Your task to perform on an android device: Open calendar and show me the first week of next month Image 0: 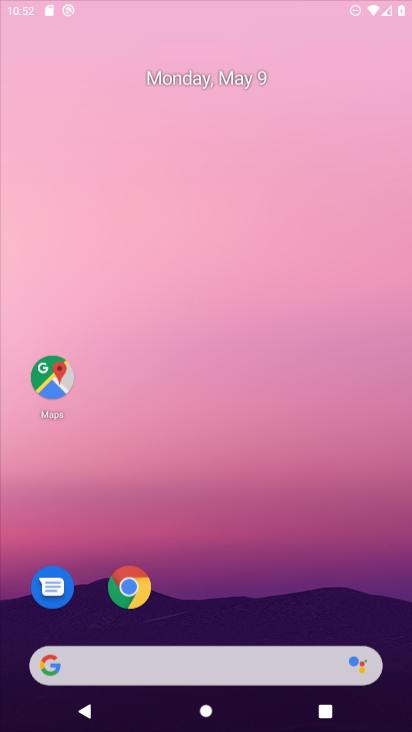
Step 0: drag from (236, 185) to (229, 130)
Your task to perform on an android device: Open calendar and show me the first week of next month Image 1: 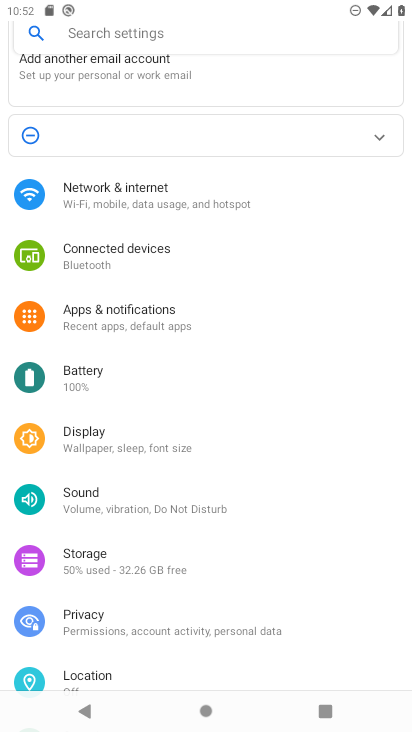
Step 1: press home button
Your task to perform on an android device: Open calendar and show me the first week of next month Image 2: 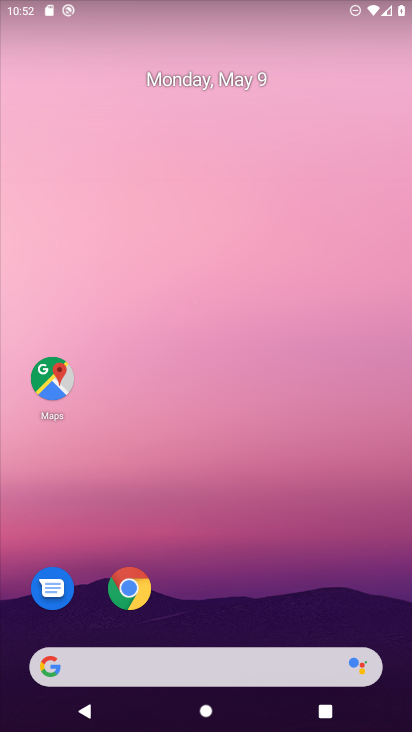
Step 2: drag from (282, 584) to (295, 100)
Your task to perform on an android device: Open calendar and show me the first week of next month Image 3: 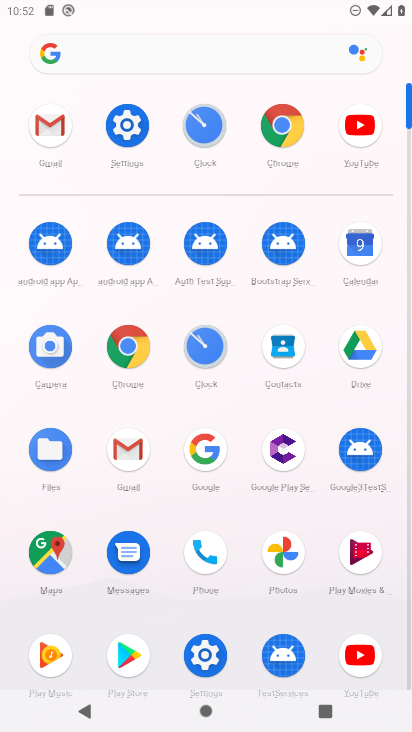
Step 3: click (371, 276)
Your task to perform on an android device: Open calendar and show me the first week of next month Image 4: 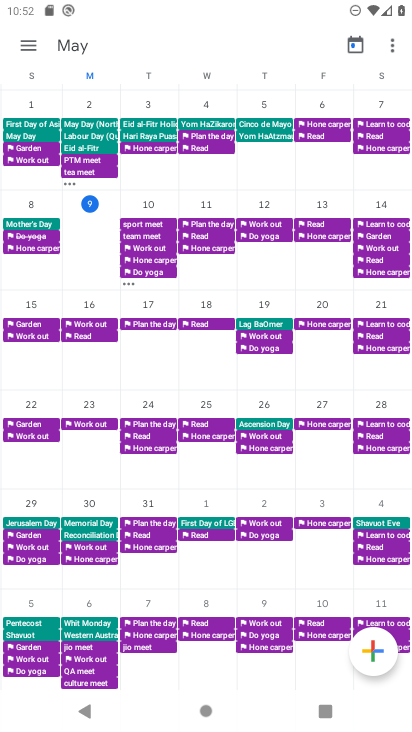
Step 4: click (92, 50)
Your task to perform on an android device: Open calendar and show me the first week of next month Image 5: 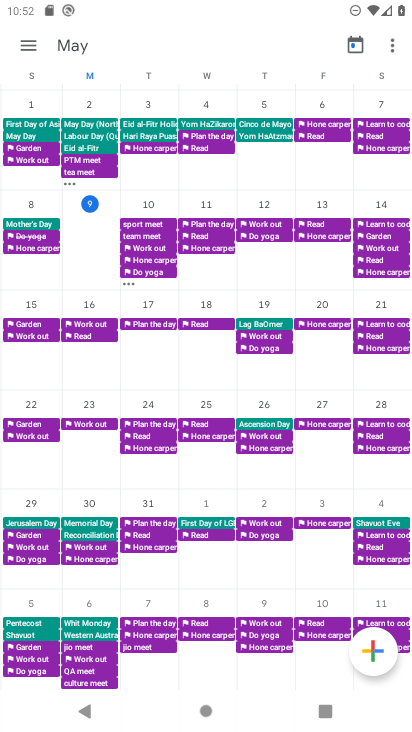
Step 5: click (77, 50)
Your task to perform on an android device: Open calendar and show me the first week of next month Image 6: 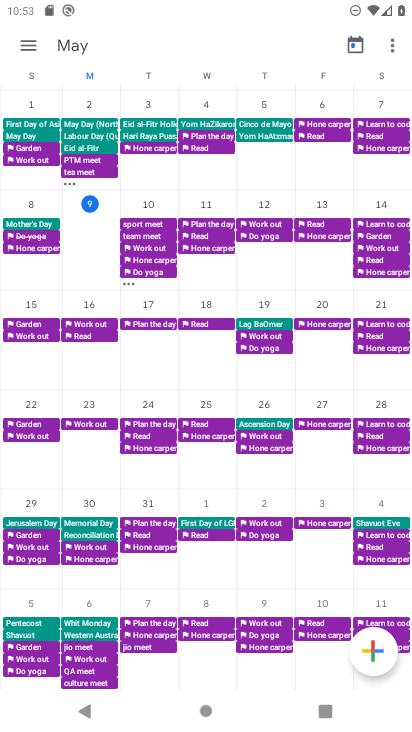
Step 6: click (352, 45)
Your task to perform on an android device: Open calendar and show me the first week of next month Image 7: 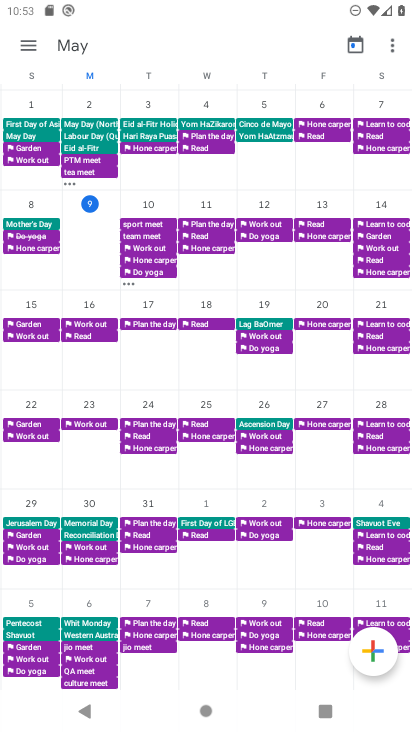
Step 7: task complete